Your task to perform on an android device: Open Google Chrome and click the shortcut for Amazon.com Image 0: 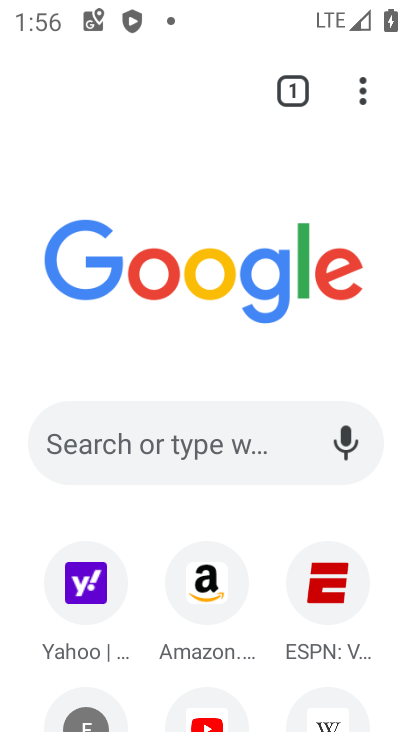
Step 0: drag from (274, 561) to (281, 232)
Your task to perform on an android device: Open Google Chrome and click the shortcut for Amazon.com Image 1: 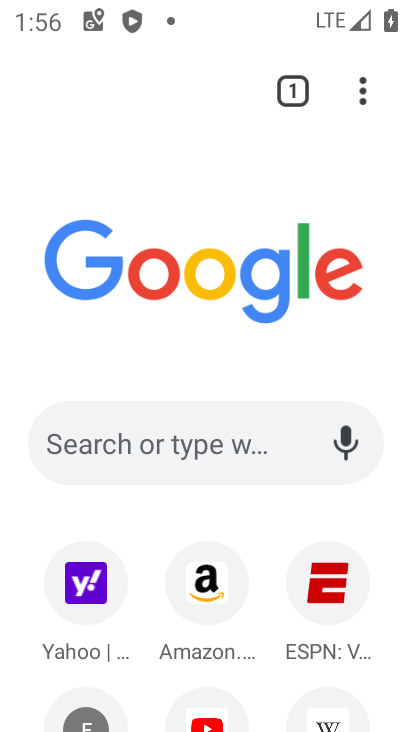
Step 1: drag from (259, 615) to (227, 323)
Your task to perform on an android device: Open Google Chrome and click the shortcut for Amazon.com Image 2: 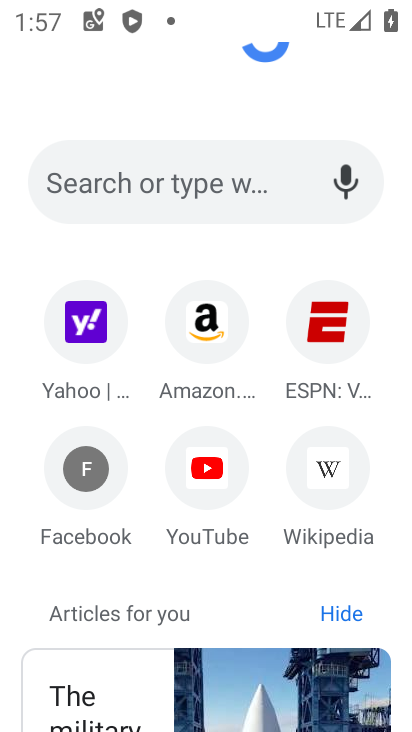
Step 2: drag from (251, 590) to (208, 226)
Your task to perform on an android device: Open Google Chrome and click the shortcut for Amazon.com Image 3: 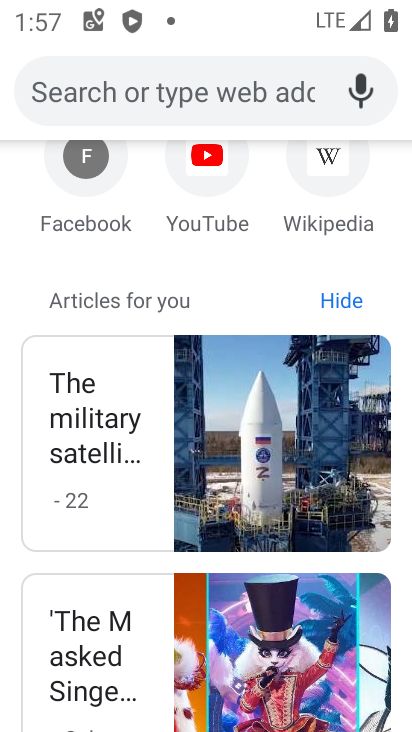
Step 3: drag from (213, 286) to (284, 464)
Your task to perform on an android device: Open Google Chrome and click the shortcut for Amazon.com Image 4: 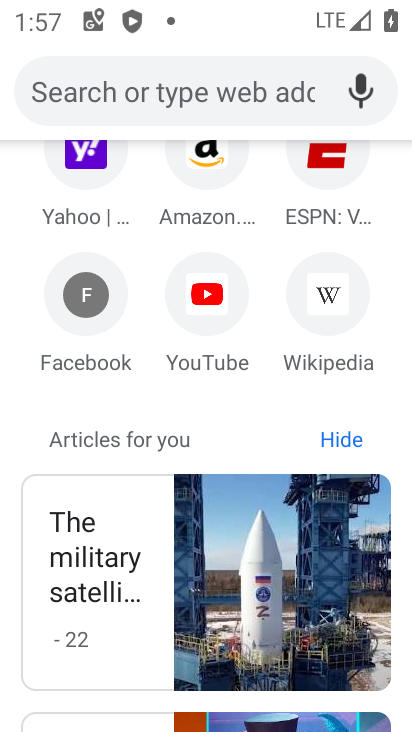
Step 4: click (202, 161)
Your task to perform on an android device: Open Google Chrome and click the shortcut for Amazon.com Image 5: 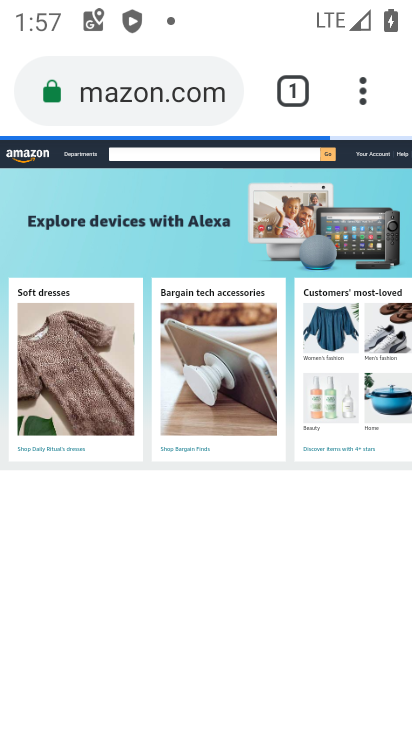
Step 5: task complete